Your task to perform on an android device: change text size in settings app Image 0: 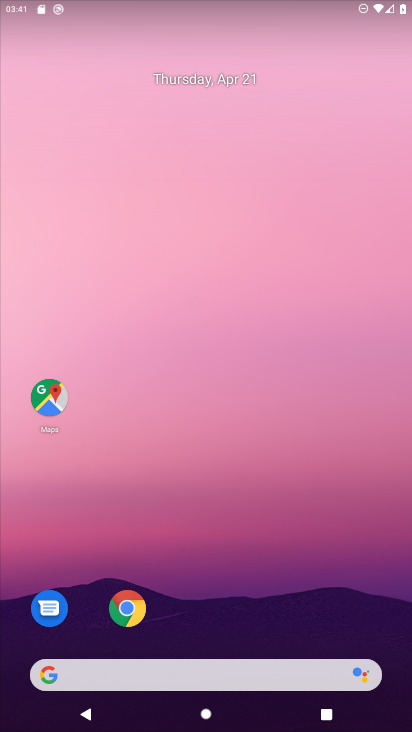
Step 0: drag from (228, 659) to (245, 282)
Your task to perform on an android device: change text size in settings app Image 1: 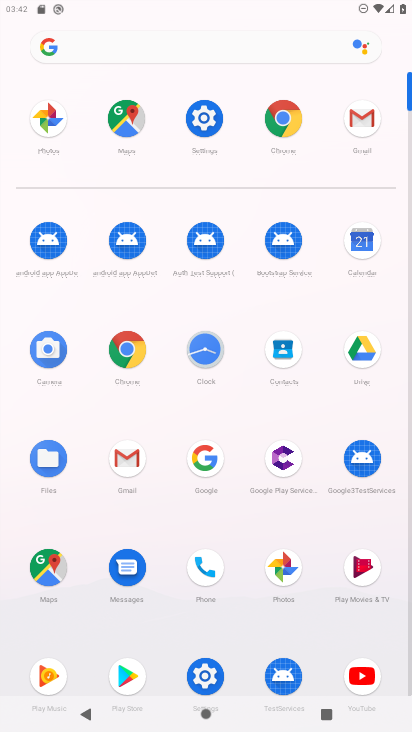
Step 1: click (205, 115)
Your task to perform on an android device: change text size in settings app Image 2: 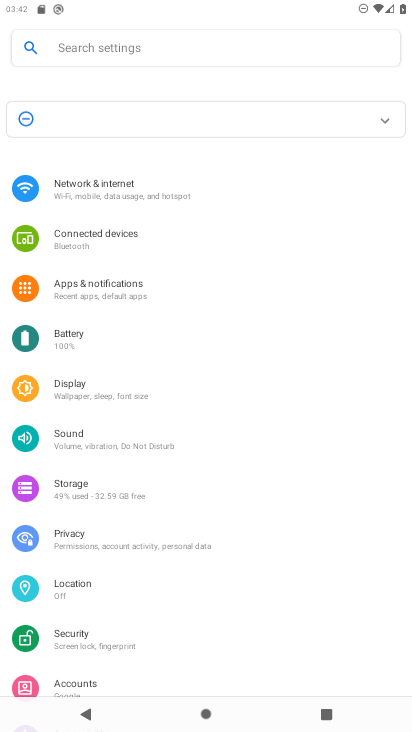
Step 2: click (205, 110)
Your task to perform on an android device: change text size in settings app Image 3: 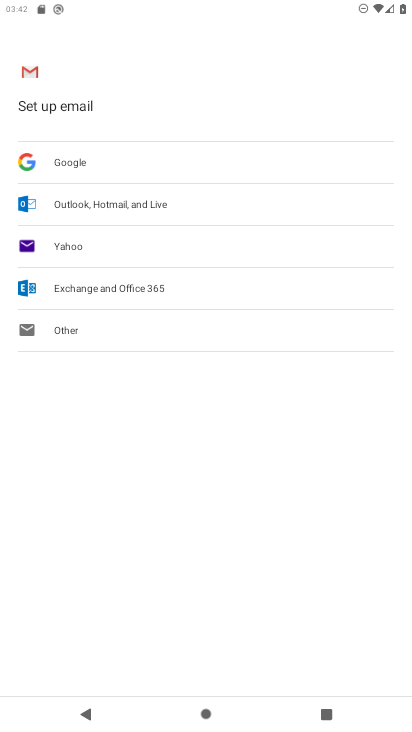
Step 3: press back button
Your task to perform on an android device: change text size in settings app Image 4: 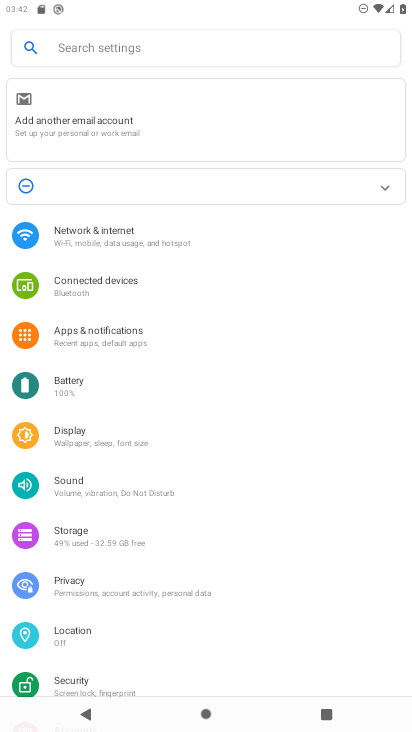
Step 4: drag from (162, 625) to (241, 216)
Your task to perform on an android device: change text size in settings app Image 5: 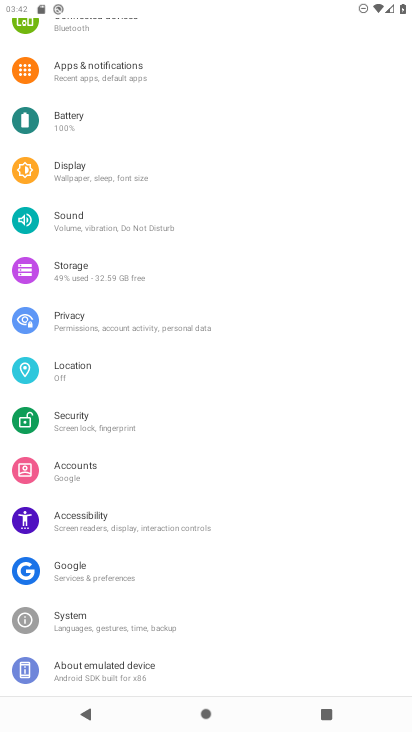
Step 5: click (112, 614)
Your task to perform on an android device: change text size in settings app Image 6: 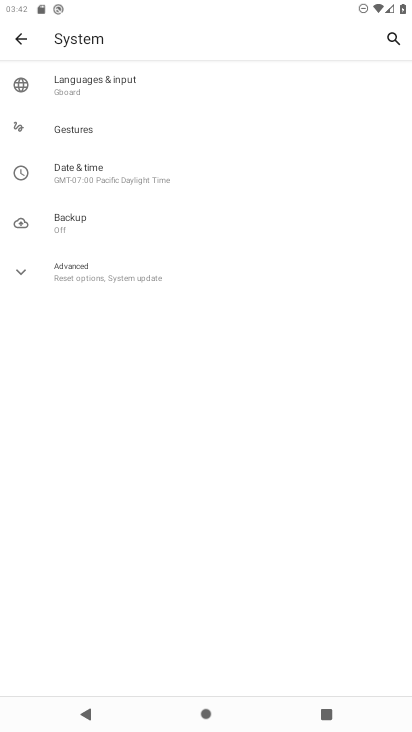
Step 6: press back button
Your task to perform on an android device: change text size in settings app Image 7: 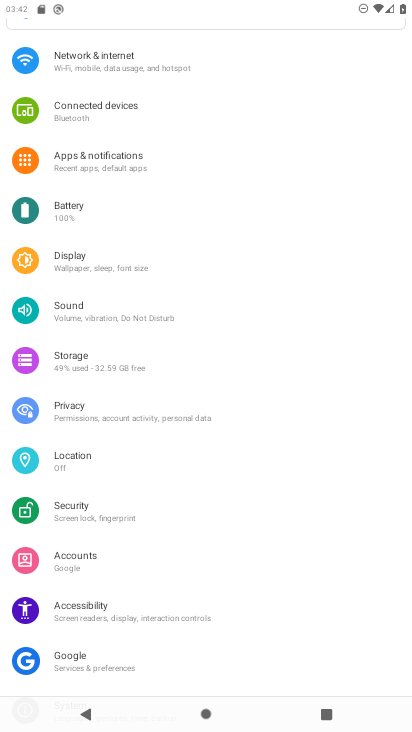
Step 7: click (103, 606)
Your task to perform on an android device: change text size in settings app Image 8: 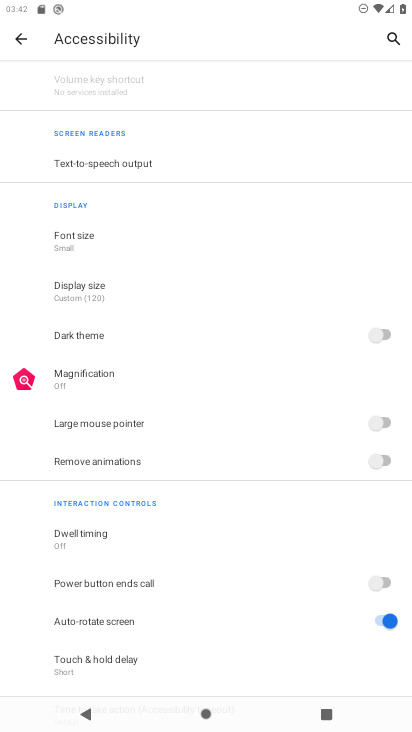
Step 8: click (69, 250)
Your task to perform on an android device: change text size in settings app Image 9: 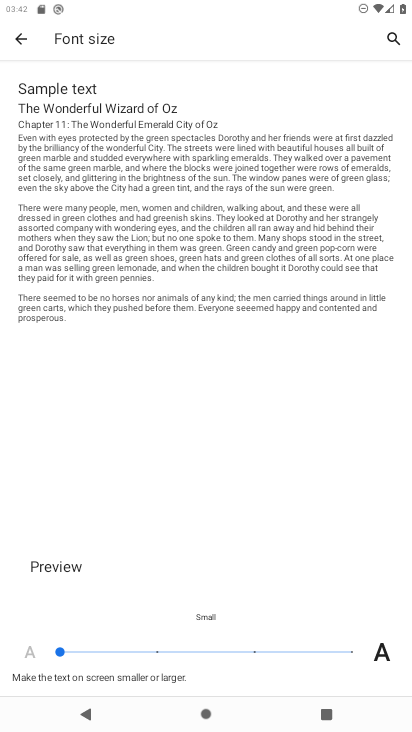
Step 9: click (150, 653)
Your task to perform on an android device: change text size in settings app Image 10: 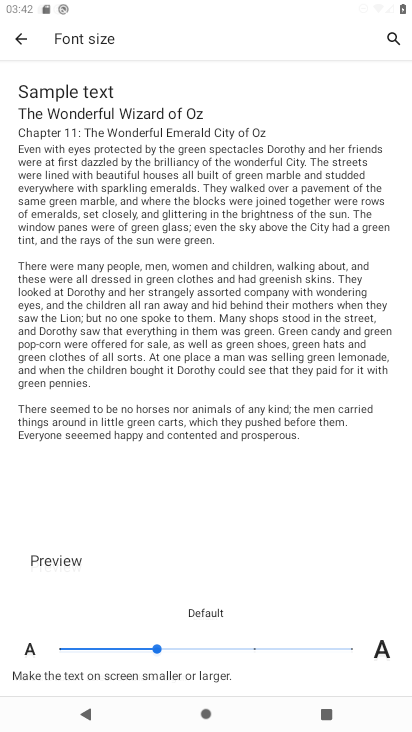
Step 10: click (161, 655)
Your task to perform on an android device: change text size in settings app Image 11: 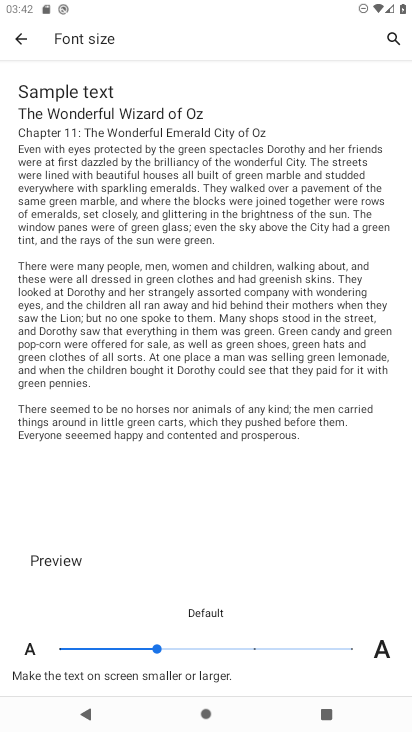
Step 11: click (250, 650)
Your task to perform on an android device: change text size in settings app Image 12: 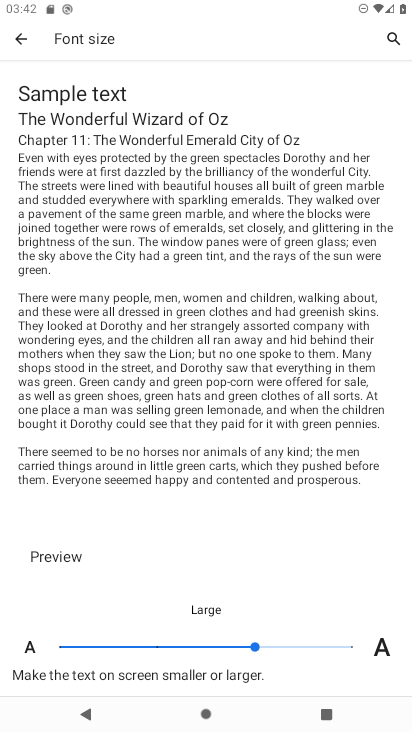
Step 12: task complete